Your task to perform on an android device: Open privacy settings Image 0: 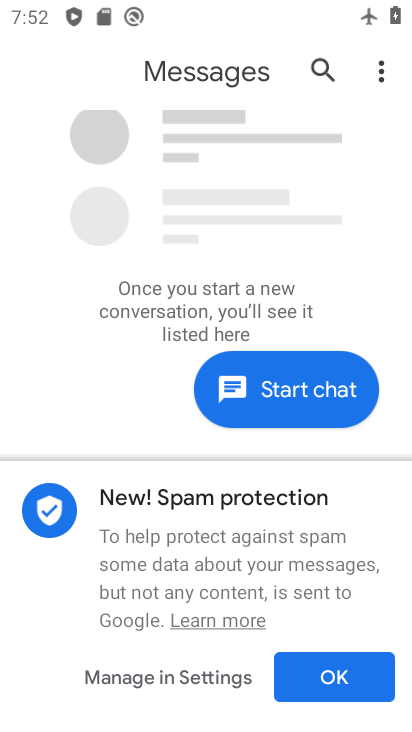
Step 0: press home button
Your task to perform on an android device: Open privacy settings Image 1: 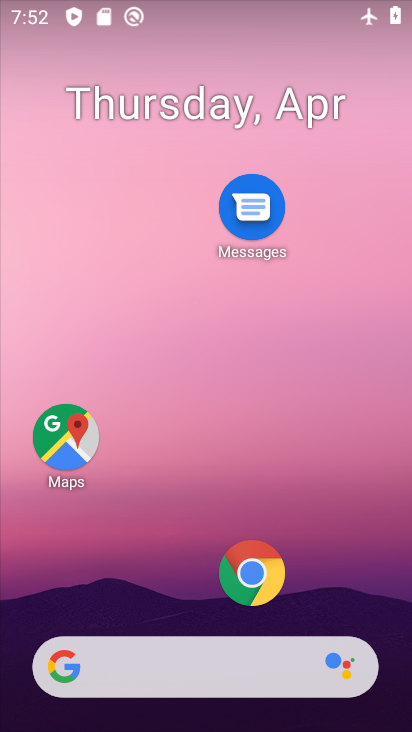
Step 1: drag from (196, 607) to (201, 80)
Your task to perform on an android device: Open privacy settings Image 2: 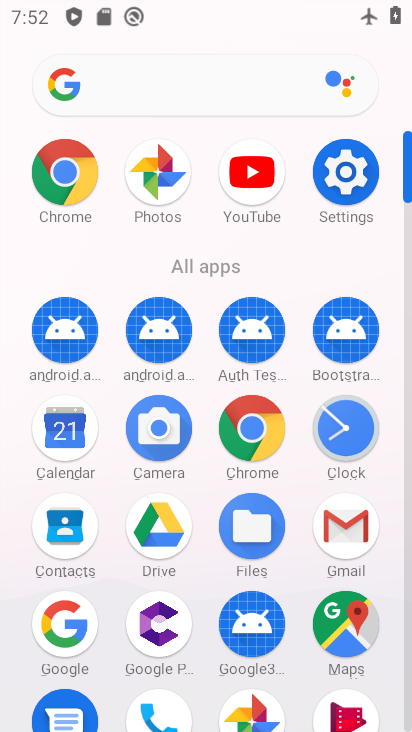
Step 2: drag from (203, 655) to (207, 118)
Your task to perform on an android device: Open privacy settings Image 3: 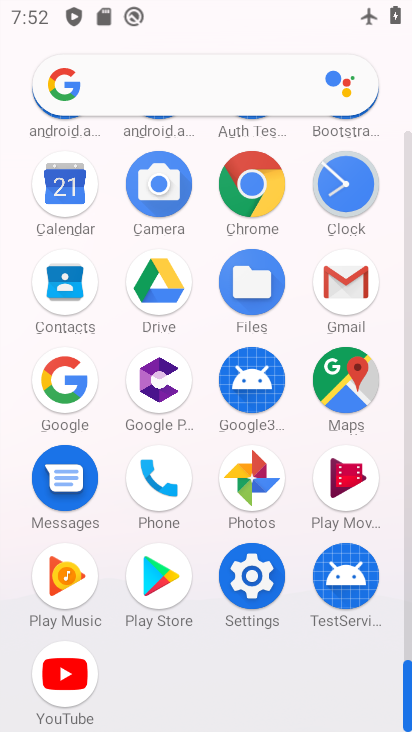
Step 3: click (250, 568)
Your task to perform on an android device: Open privacy settings Image 4: 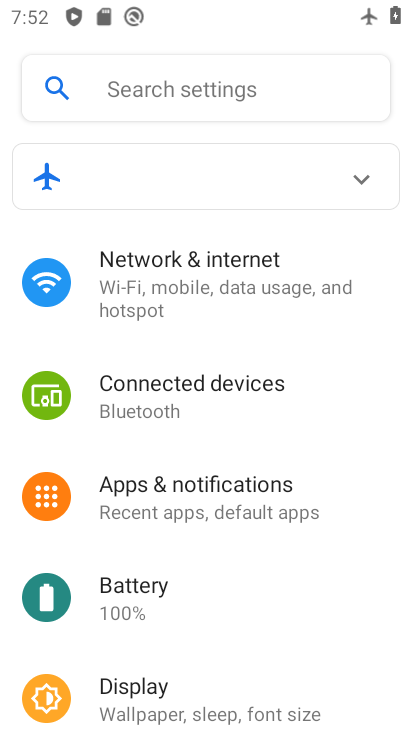
Step 4: drag from (207, 685) to (218, 121)
Your task to perform on an android device: Open privacy settings Image 5: 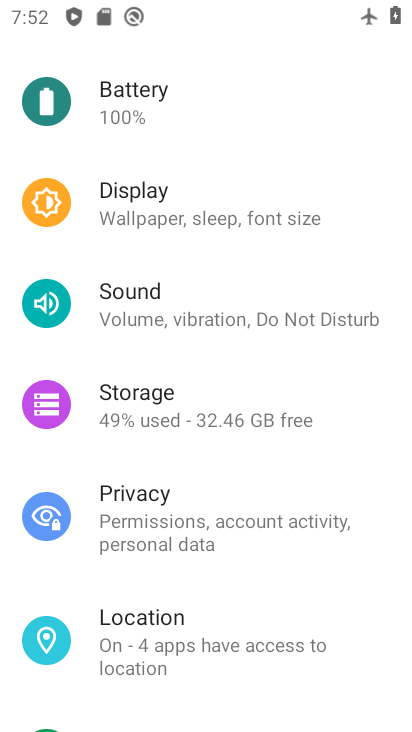
Step 5: click (193, 508)
Your task to perform on an android device: Open privacy settings Image 6: 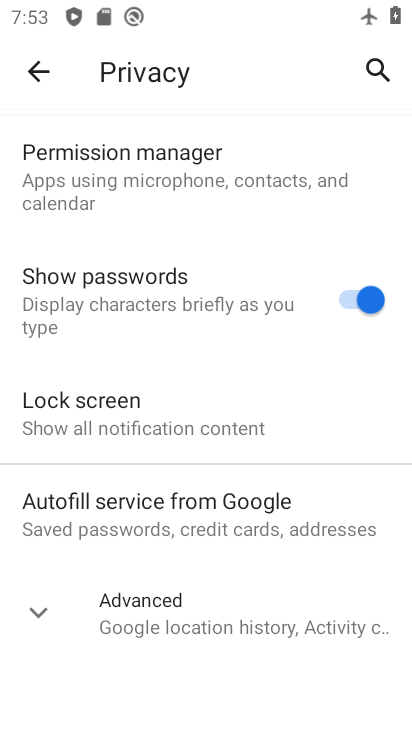
Step 6: click (35, 605)
Your task to perform on an android device: Open privacy settings Image 7: 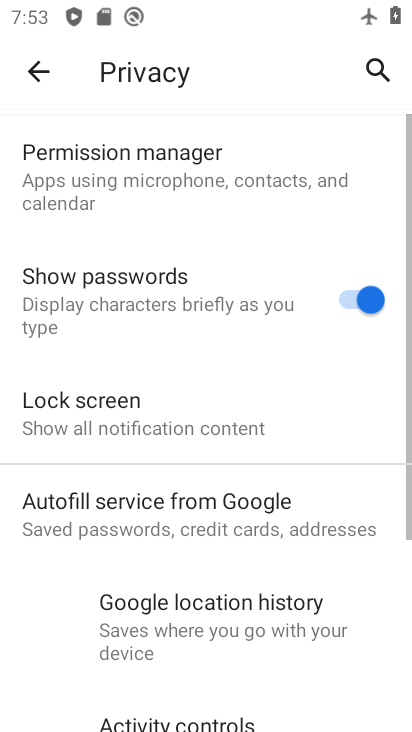
Step 7: task complete